Your task to perform on an android device: toggle pop-ups in chrome Image 0: 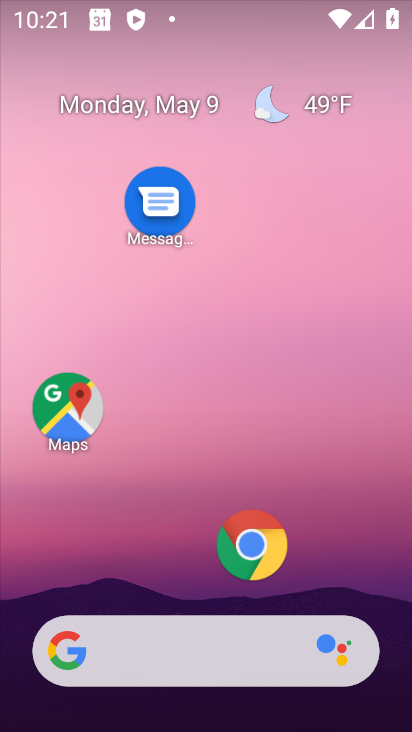
Step 0: click (270, 558)
Your task to perform on an android device: toggle pop-ups in chrome Image 1: 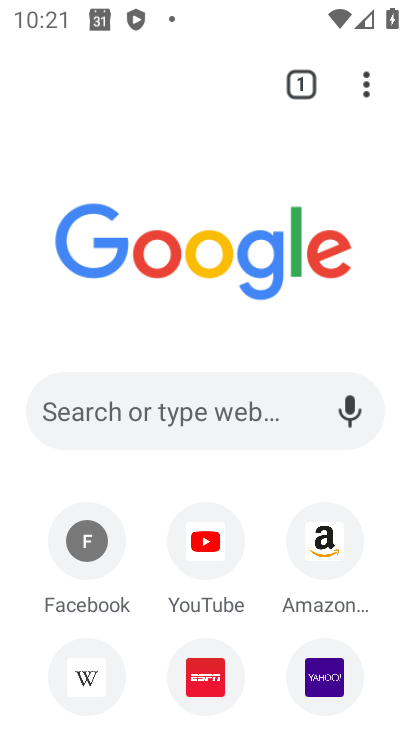
Step 1: click (374, 84)
Your task to perform on an android device: toggle pop-ups in chrome Image 2: 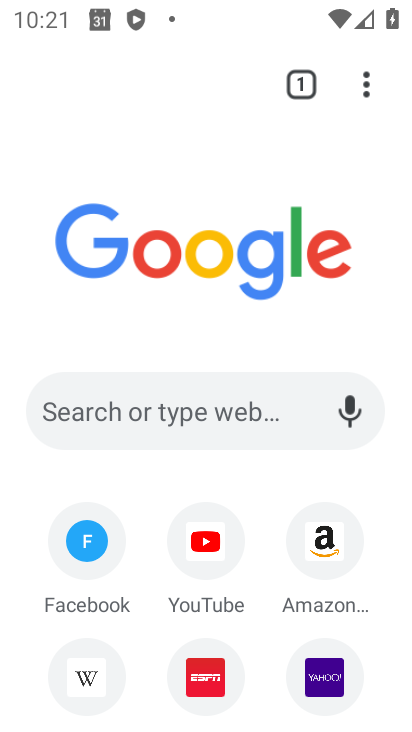
Step 2: click (357, 86)
Your task to perform on an android device: toggle pop-ups in chrome Image 3: 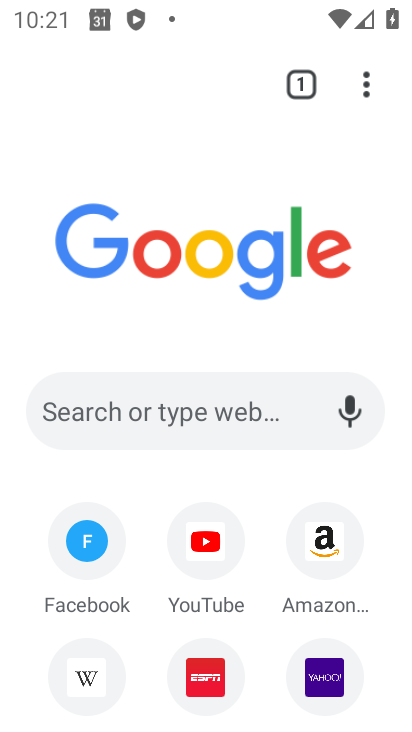
Step 3: click (371, 98)
Your task to perform on an android device: toggle pop-ups in chrome Image 4: 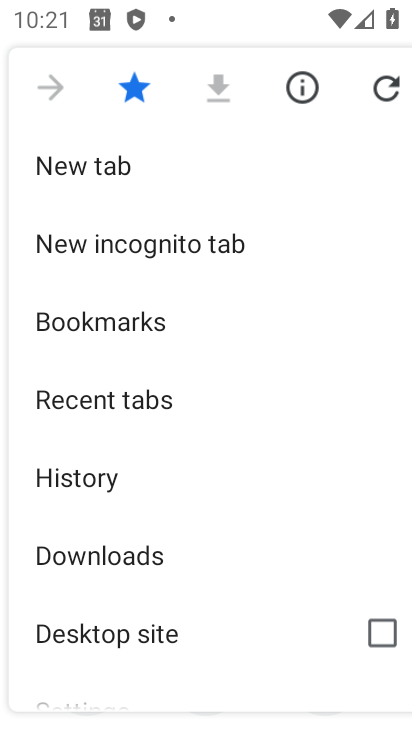
Step 4: drag from (237, 573) to (213, 241)
Your task to perform on an android device: toggle pop-ups in chrome Image 5: 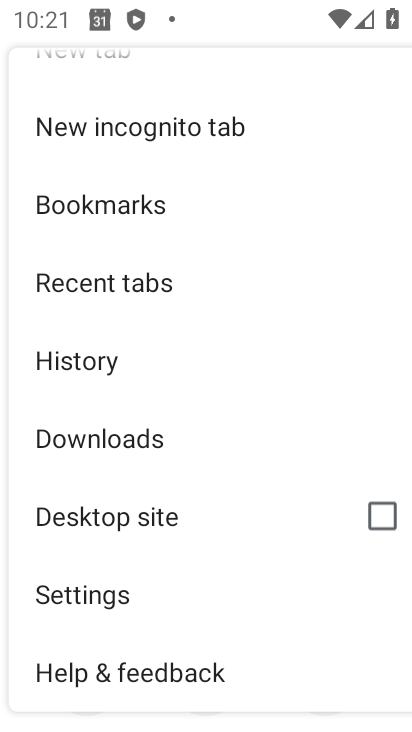
Step 5: click (146, 591)
Your task to perform on an android device: toggle pop-ups in chrome Image 6: 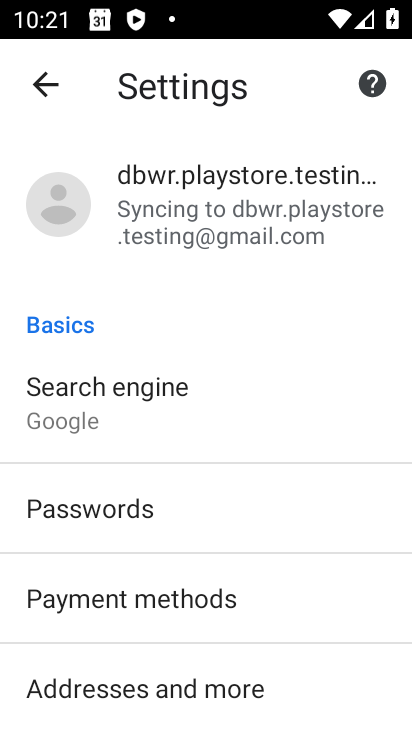
Step 6: drag from (91, 572) to (78, 219)
Your task to perform on an android device: toggle pop-ups in chrome Image 7: 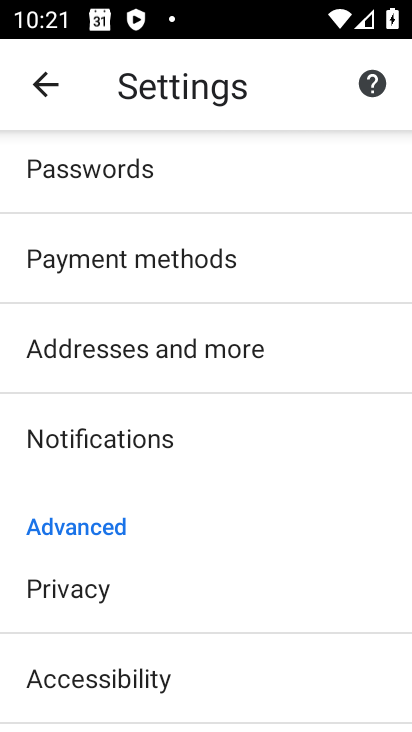
Step 7: drag from (136, 623) to (131, 314)
Your task to perform on an android device: toggle pop-ups in chrome Image 8: 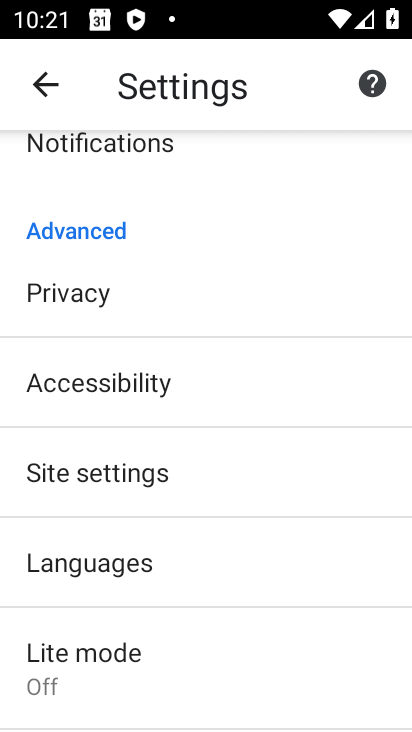
Step 8: click (203, 473)
Your task to perform on an android device: toggle pop-ups in chrome Image 9: 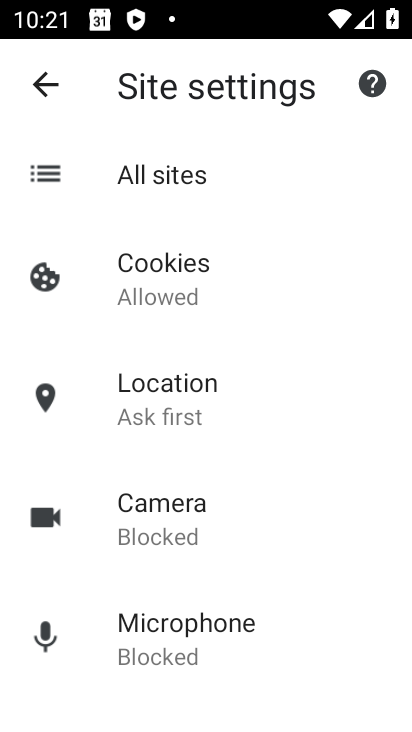
Step 9: drag from (227, 555) to (251, 253)
Your task to perform on an android device: toggle pop-ups in chrome Image 10: 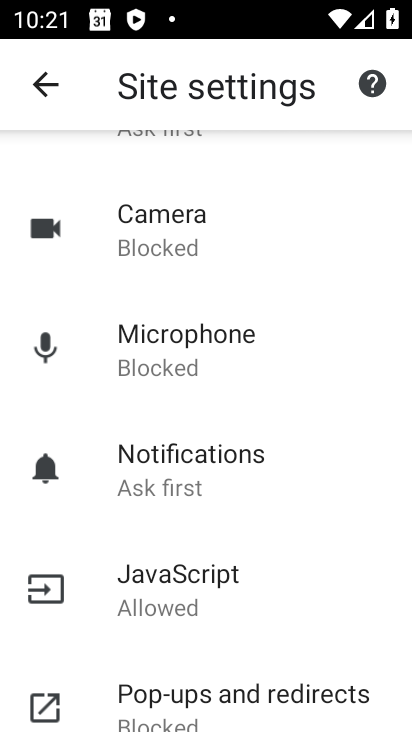
Step 10: click (270, 696)
Your task to perform on an android device: toggle pop-ups in chrome Image 11: 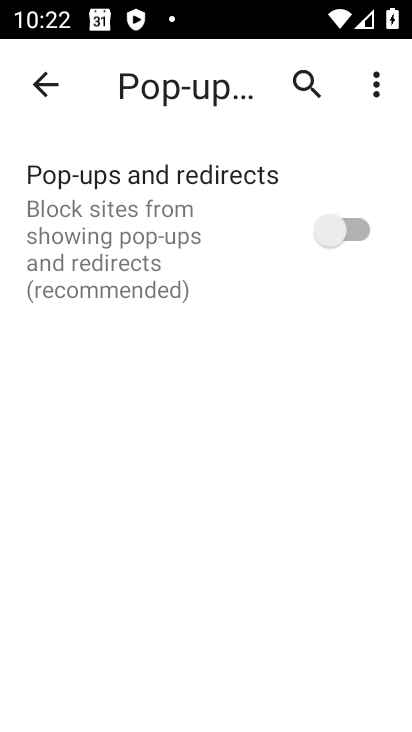
Step 11: click (360, 222)
Your task to perform on an android device: toggle pop-ups in chrome Image 12: 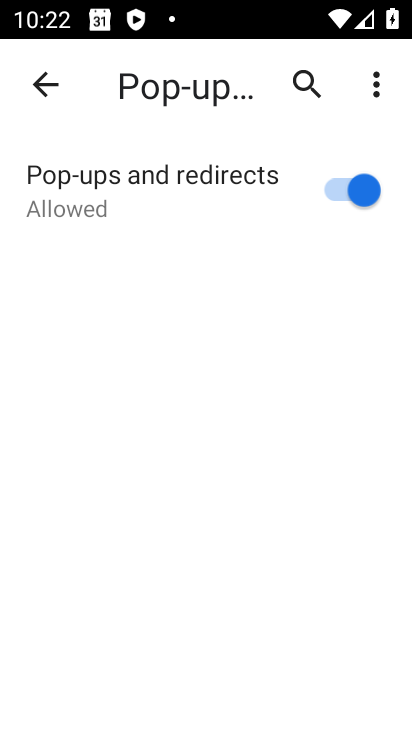
Step 12: task complete